Your task to perform on an android device: Open Google Chrome Image 0: 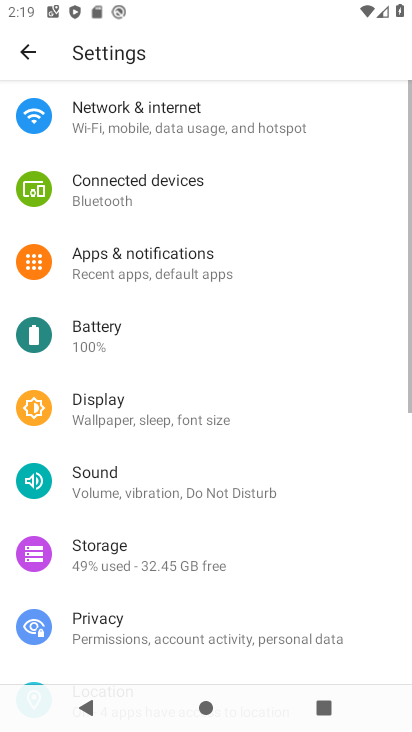
Step 0: press home button
Your task to perform on an android device: Open Google Chrome Image 1: 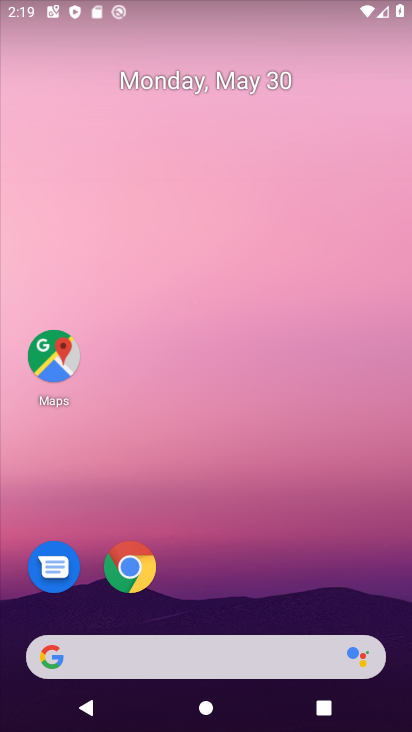
Step 1: click (141, 577)
Your task to perform on an android device: Open Google Chrome Image 2: 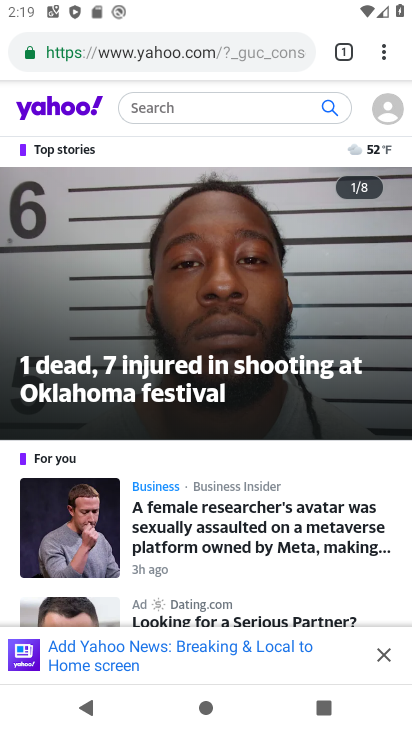
Step 2: click (391, 655)
Your task to perform on an android device: Open Google Chrome Image 3: 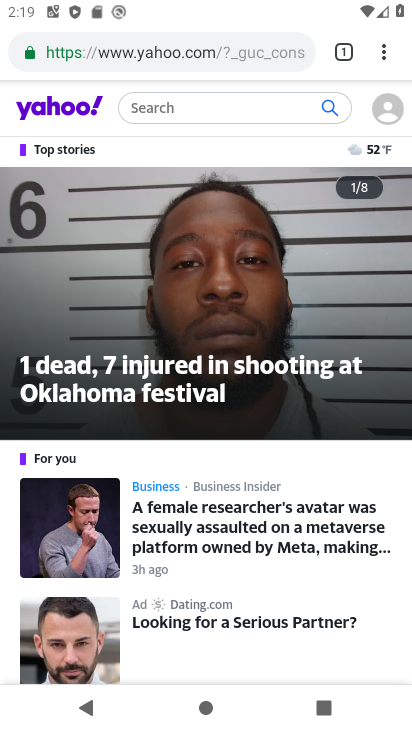
Step 3: task complete